Your task to perform on an android device: Show me popular games on the Play Store Image 0: 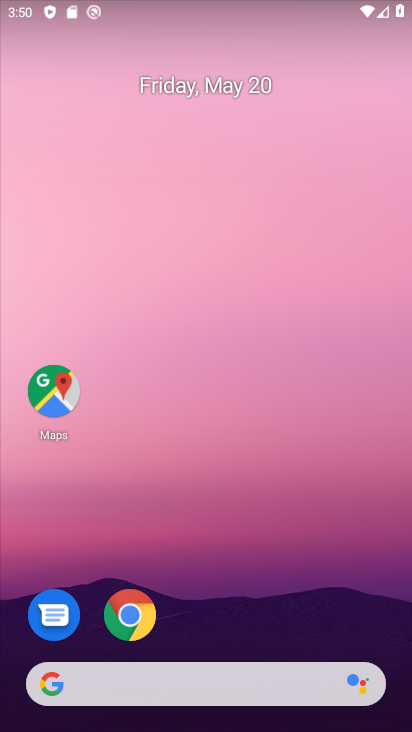
Step 0: drag from (266, 642) to (289, 149)
Your task to perform on an android device: Show me popular games on the Play Store Image 1: 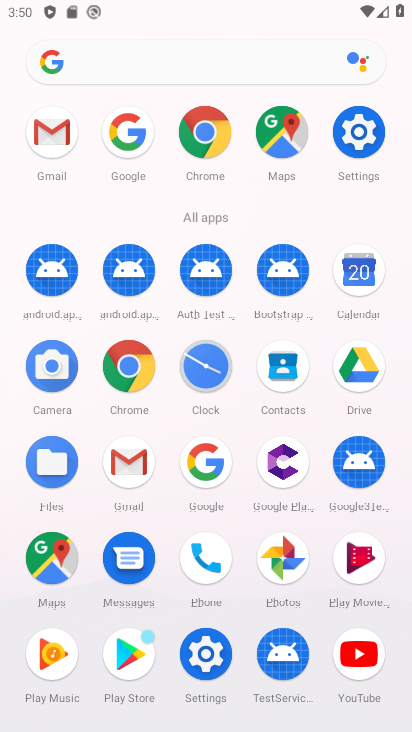
Step 1: drag from (227, 553) to (231, 344)
Your task to perform on an android device: Show me popular games on the Play Store Image 2: 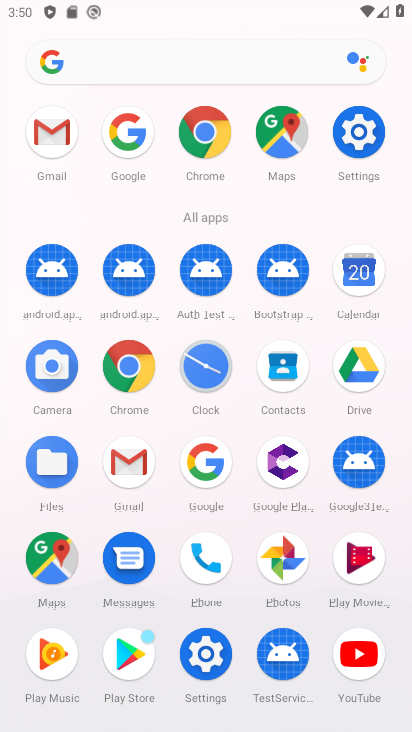
Step 2: click (134, 675)
Your task to perform on an android device: Show me popular games on the Play Store Image 3: 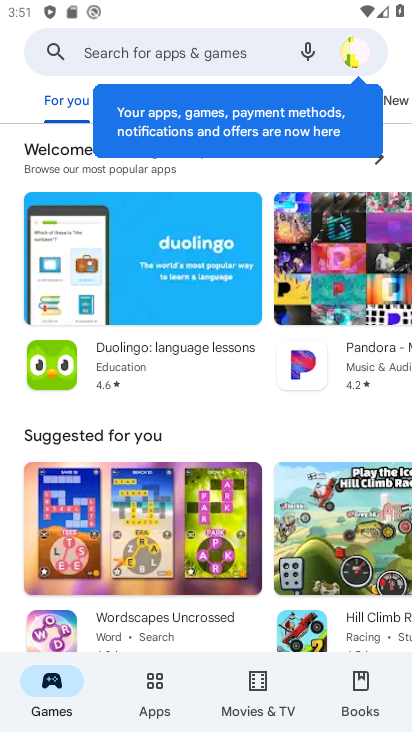
Step 3: task complete